Your task to perform on an android device: toggle notifications settings in the gmail app Image 0: 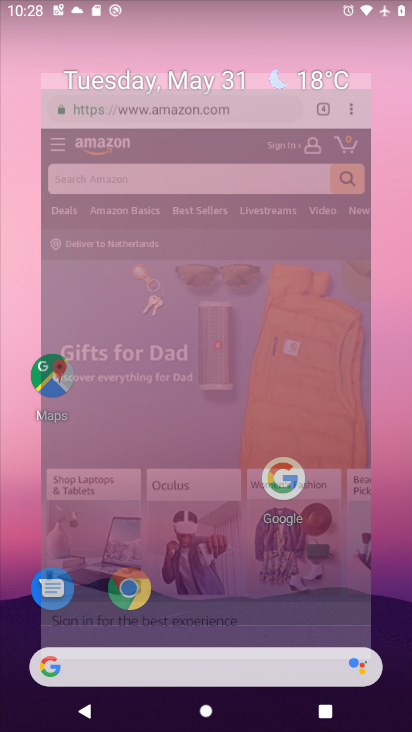
Step 0: press home button
Your task to perform on an android device: toggle notifications settings in the gmail app Image 1: 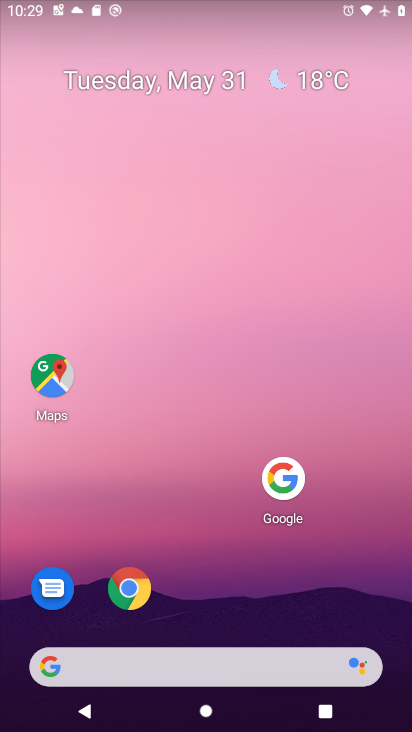
Step 1: drag from (180, 669) to (307, 170)
Your task to perform on an android device: toggle notifications settings in the gmail app Image 2: 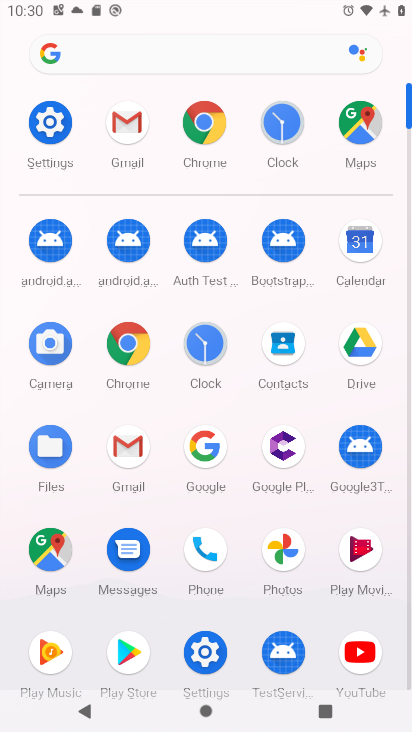
Step 2: click (138, 128)
Your task to perform on an android device: toggle notifications settings in the gmail app Image 3: 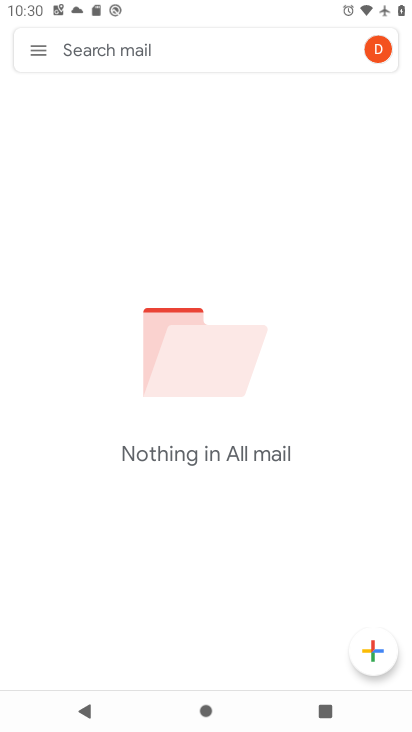
Step 3: click (42, 53)
Your task to perform on an android device: toggle notifications settings in the gmail app Image 4: 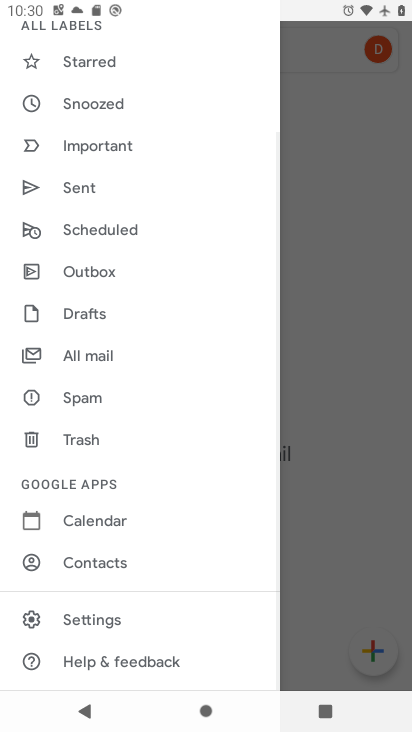
Step 4: click (78, 623)
Your task to perform on an android device: toggle notifications settings in the gmail app Image 5: 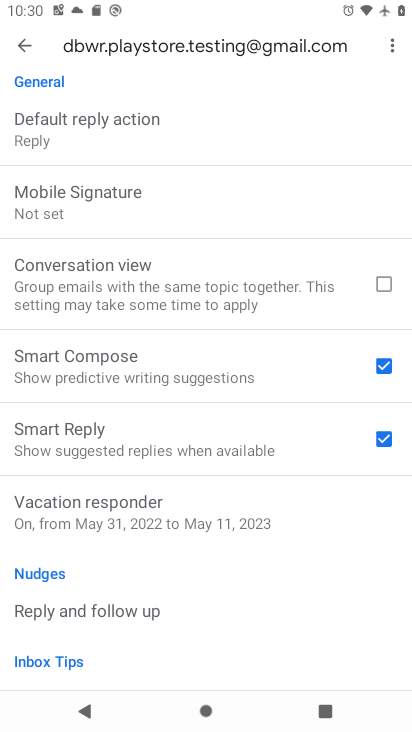
Step 5: drag from (261, 118) to (251, 583)
Your task to perform on an android device: toggle notifications settings in the gmail app Image 6: 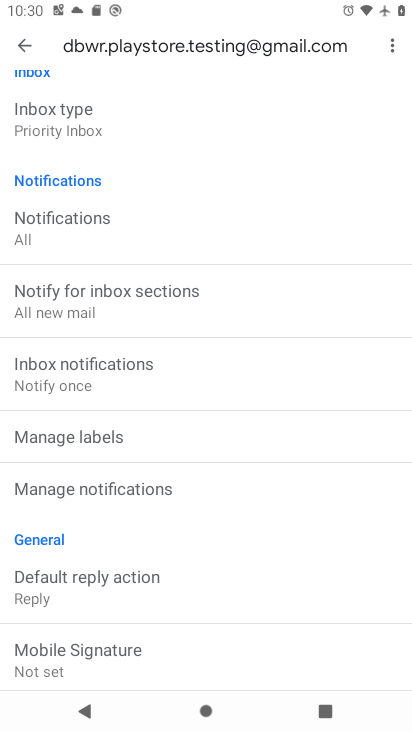
Step 6: click (83, 228)
Your task to perform on an android device: toggle notifications settings in the gmail app Image 7: 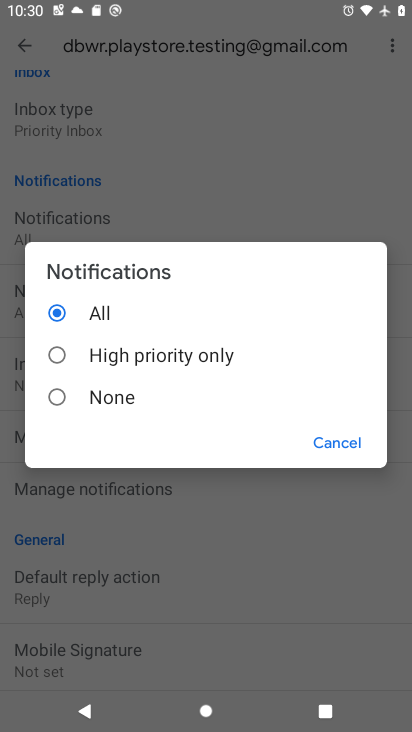
Step 7: click (54, 397)
Your task to perform on an android device: toggle notifications settings in the gmail app Image 8: 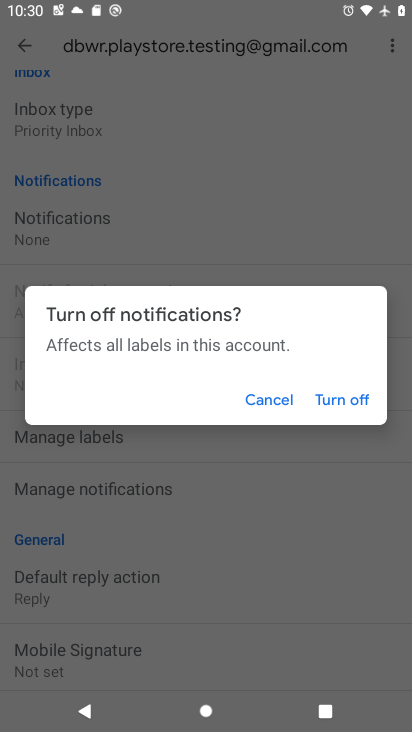
Step 8: click (352, 403)
Your task to perform on an android device: toggle notifications settings in the gmail app Image 9: 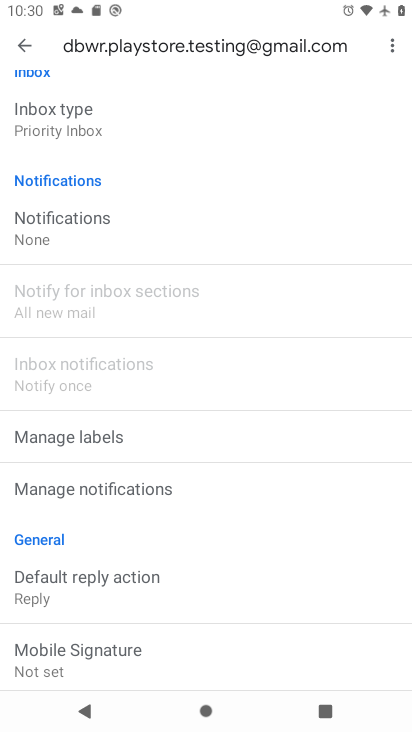
Step 9: task complete